Your task to perform on an android device: What's on my calendar tomorrow? Image 0: 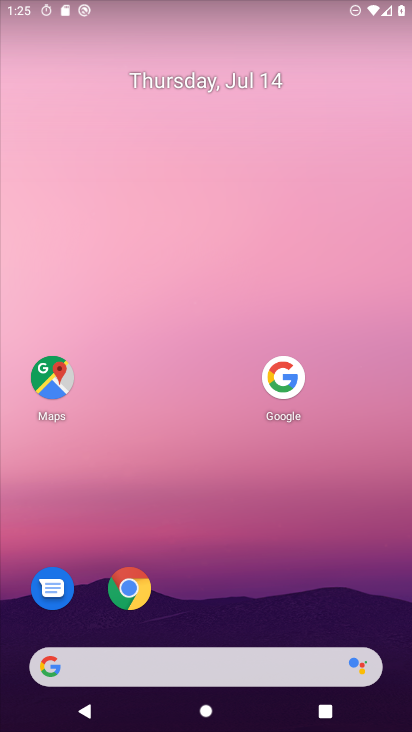
Step 0: press home button
Your task to perform on an android device: What's on my calendar tomorrow? Image 1: 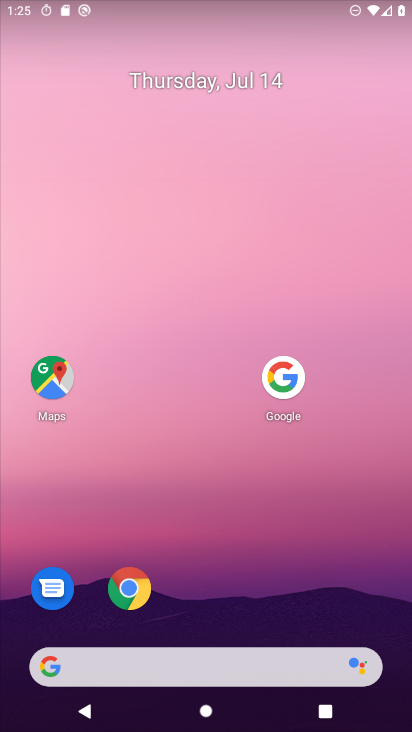
Step 1: drag from (164, 668) to (224, 136)
Your task to perform on an android device: What's on my calendar tomorrow? Image 2: 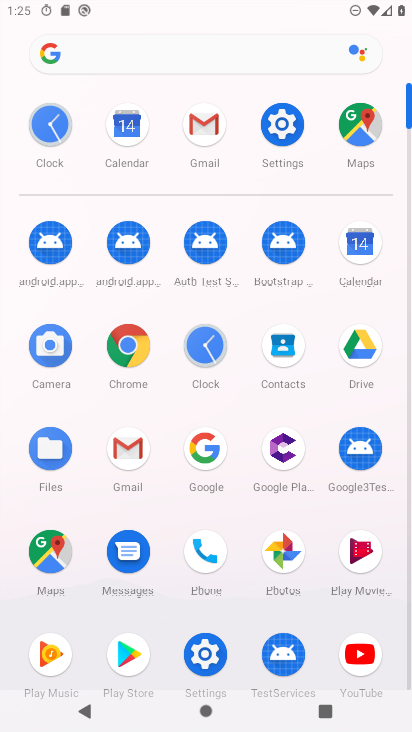
Step 2: click (353, 245)
Your task to perform on an android device: What's on my calendar tomorrow? Image 3: 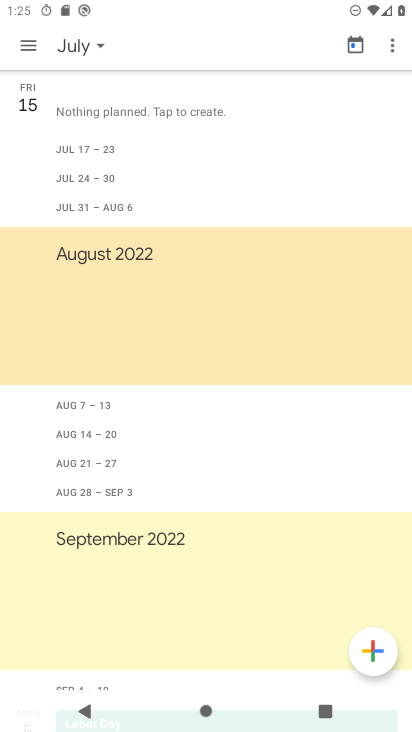
Step 3: task complete